Your task to perform on an android device: Show me productivity apps on the Play Store Image 0: 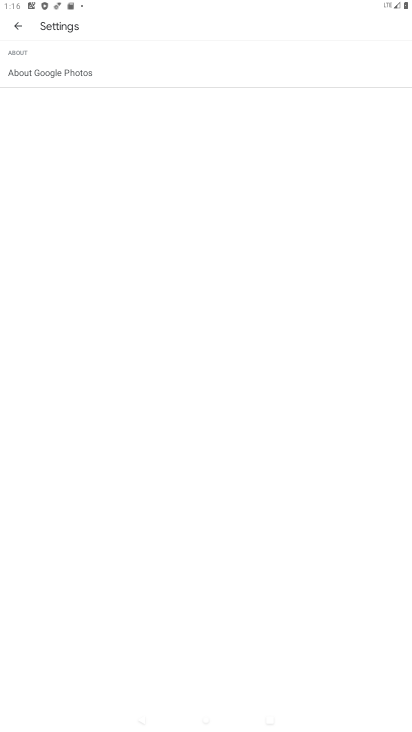
Step 0: press home button
Your task to perform on an android device: Show me productivity apps on the Play Store Image 1: 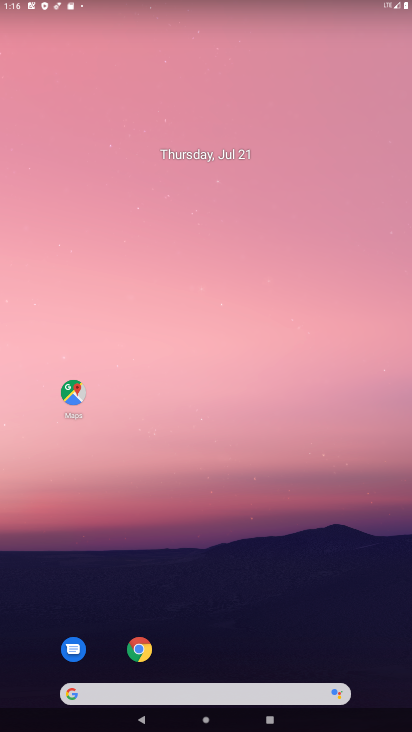
Step 1: drag from (230, 723) to (217, 51)
Your task to perform on an android device: Show me productivity apps on the Play Store Image 2: 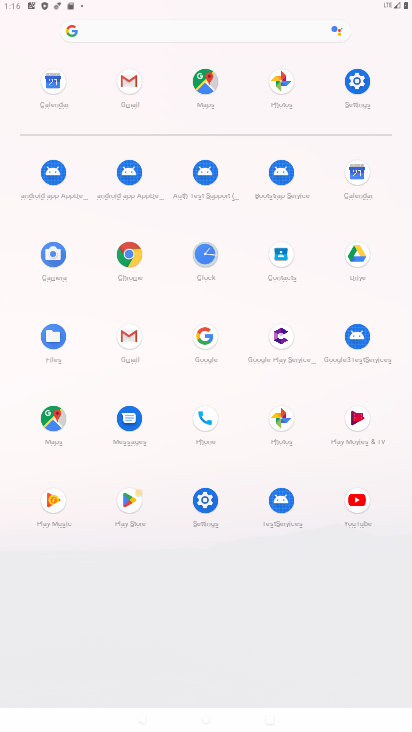
Step 2: click (129, 500)
Your task to perform on an android device: Show me productivity apps on the Play Store Image 3: 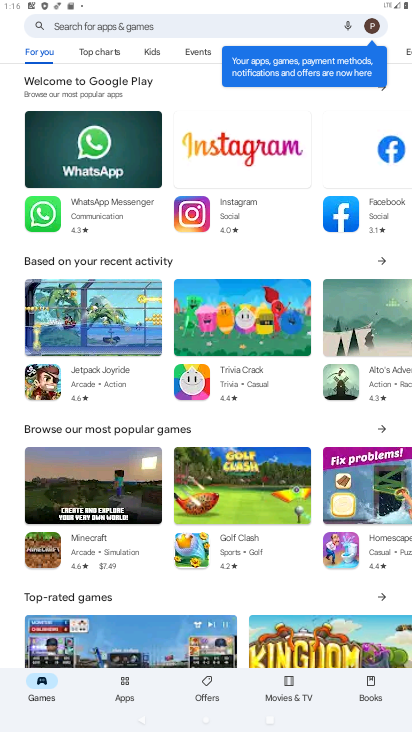
Step 3: click (121, 694)
Your task to perform on an android device: Show me productivity apps on the Play Store Image 4: 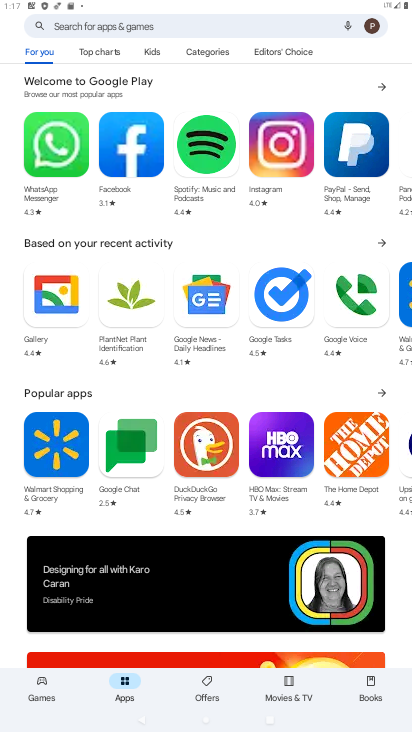
Step 4: click (206, 53)
Your task to perform on an android device: Show me productivity apps on the Play Store Image 5: 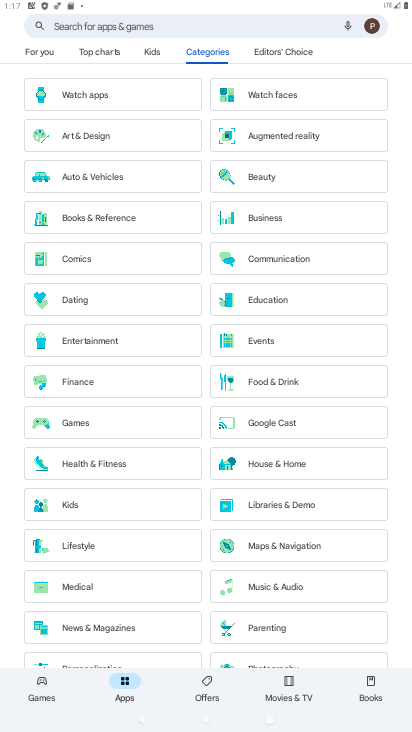
Step 5: drag from (187, 619) to (175, 323)
Your task to perform on an android device: Show me productivity apps on the Play Store Image 6: 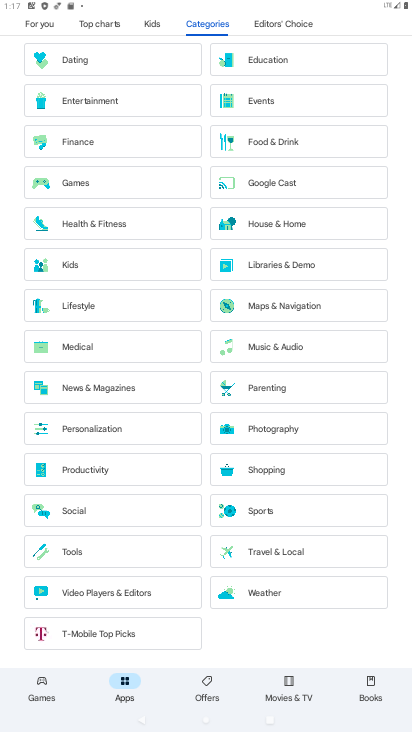
Step 6: click (86, 470)
Your task to perform on an android device: Show me productivity apps on the Play Store Image 7: 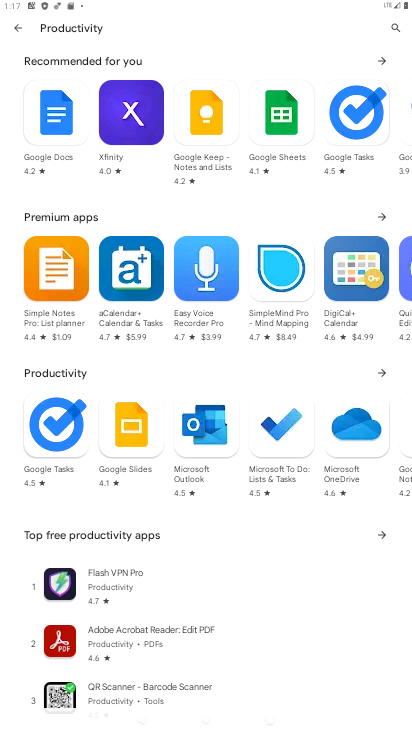
Step 7: task complete